Your task to perform on an android device: Open calendar and show me the fourth week of next month Image 0: 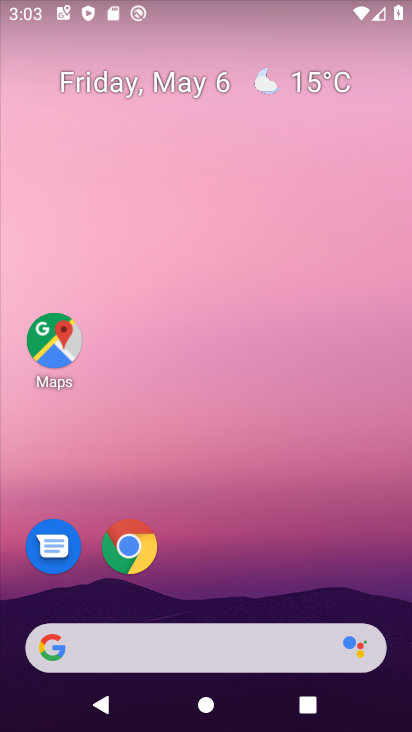
Step 0: drag from (210, 622) to (246, 150)
Your task to perform on an android device: Open calendar and show me the fourth week of next month Image 1: 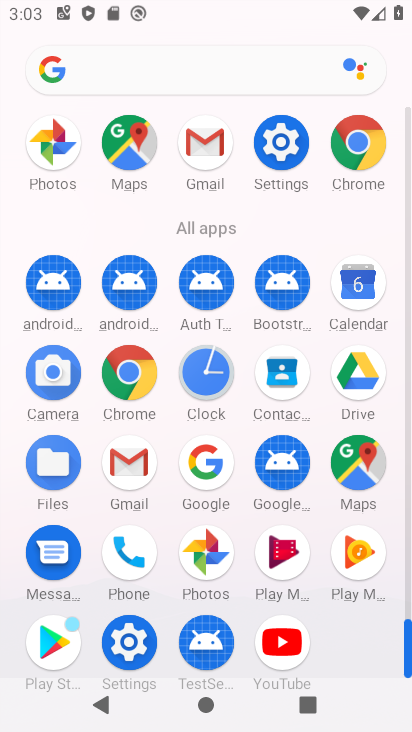
Step 1: click (367, 286)
Your task to perform on an android device: Open calendar and show me the fourth week of next month Image 2: 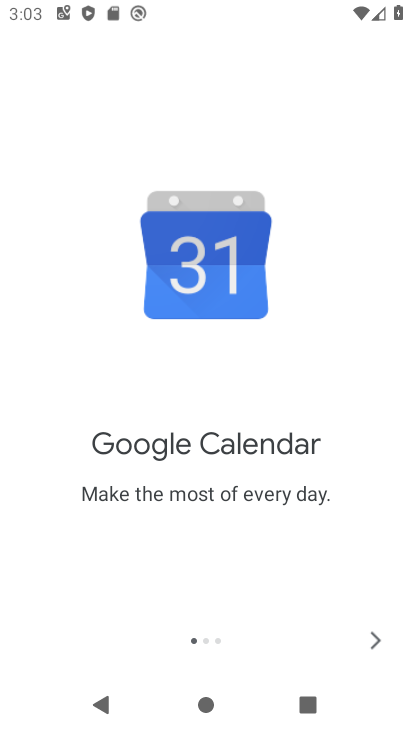
Step 2: click (372, 636)
Your task to perform on an android device: Open calendar and show me the fourth week of next month Image 3: 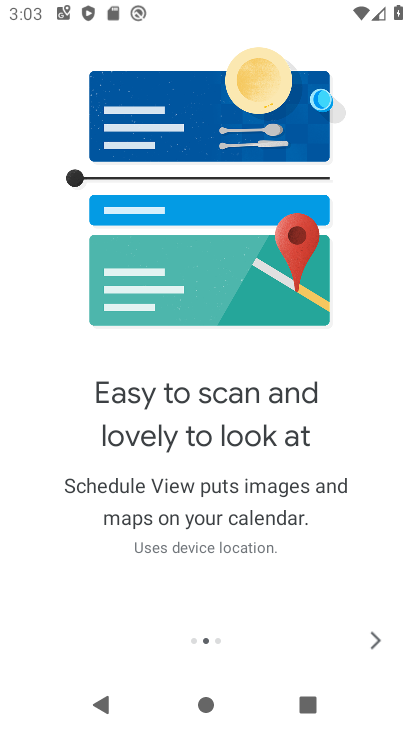
Step 3: click (372, 636)
Your task to perform on an android device: Open calendar and show me the fourth week of next month Image 4: 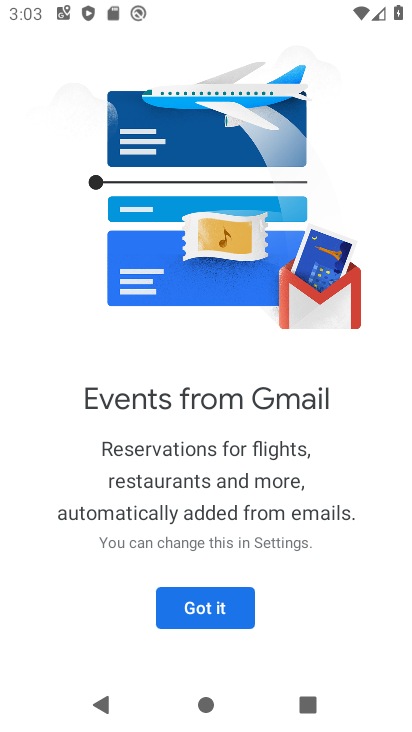
Step 4: click (238, 605)
Your task to perform on an android device: Open calendar and show me the fourth week of next month Image 5: 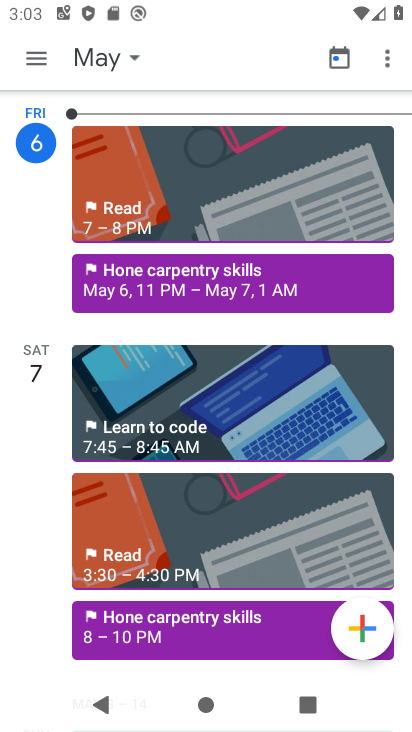
Step 5: click (96, 58)
Your task to perform on an android device: Open calendar and show me the fourth week of next month Image 6: 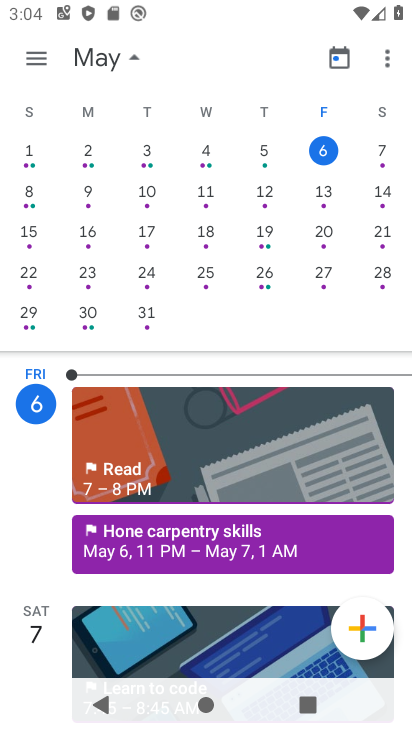
Step 6: drag from (383, 253) to (44, 243)
Your task to perform on an android device: Open calendar and show me the fourth week of next month Image 7: 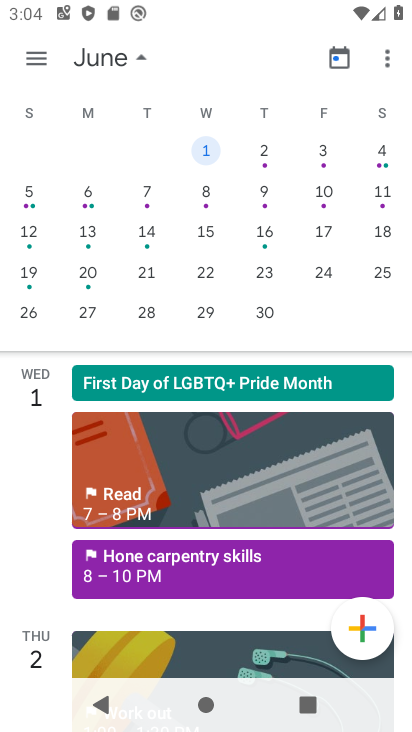
Step 7: click (37, 272)
Your task to perform on an android device: Open calendar and show me the fourth week of next month Image 8: 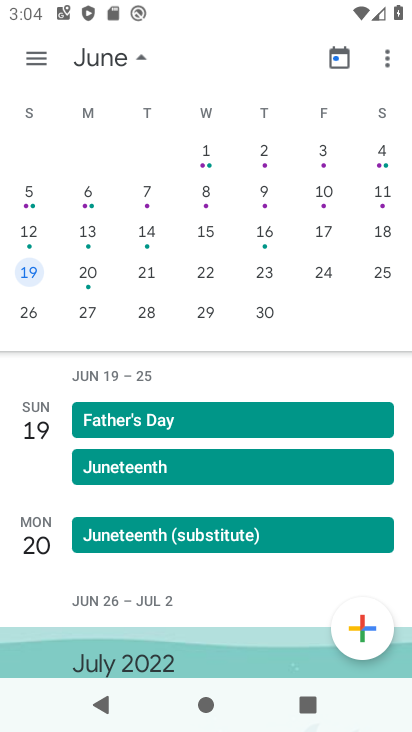
Step 8: task complete